Your task to perform on an android device: turn off location Image 0: 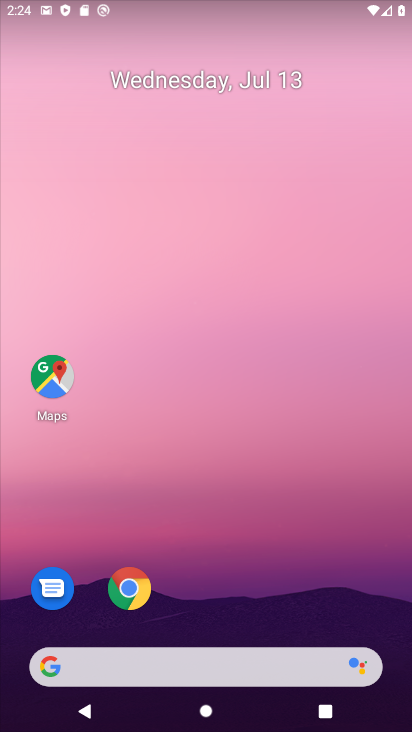
Step 0: drag from (279, 573) to (332, 71)
Your task to perform on an android device: turn off location Image 1: 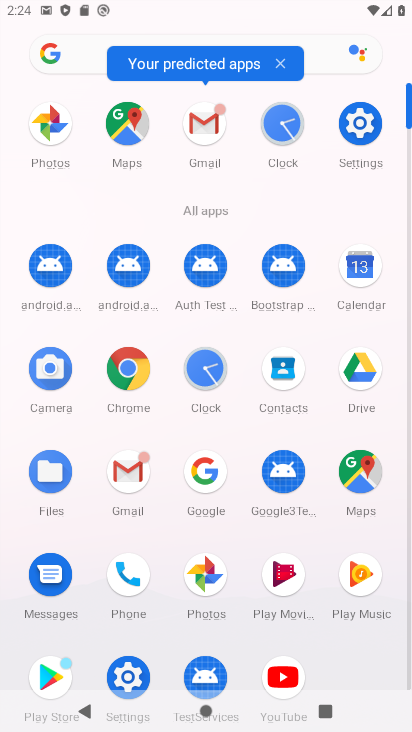
Step 1: click (357, 107)
Your task to perform on an android device: turn off location Image 2: 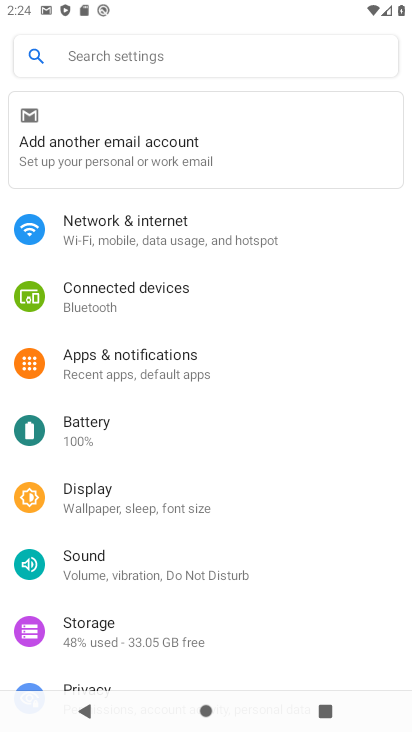
Step 2: drag from (188, 315) to (193, 276)
Your task to perform on an android device: turn off location Image 3: 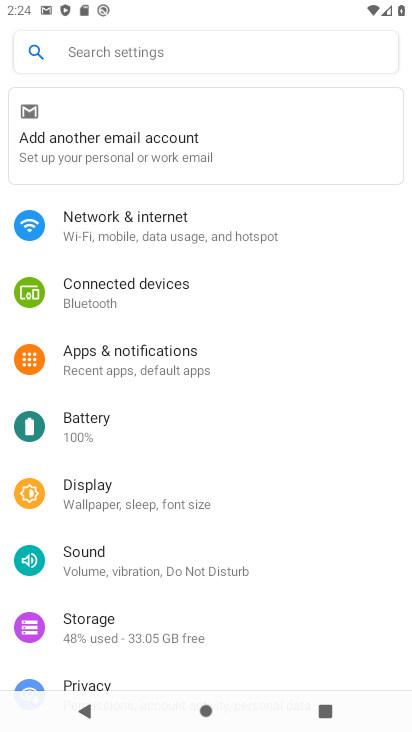
Step 3: drag from (141, 658) to (107, 287)
Your task to perform on an android device: turn off location Image 4: 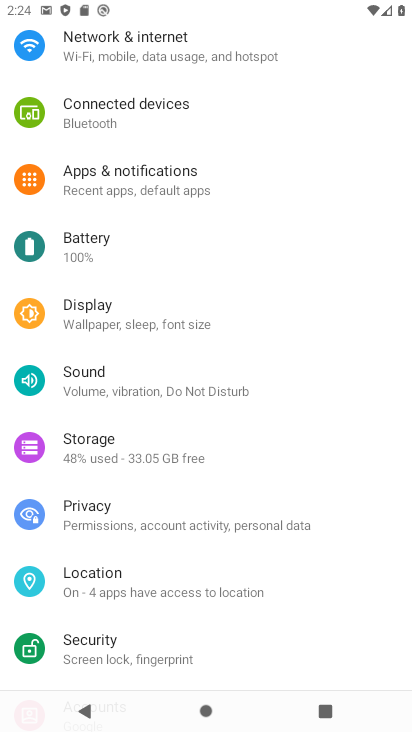
Step 4: click (106, 580)
Your task to perform on an android device: turn off location Image 5: 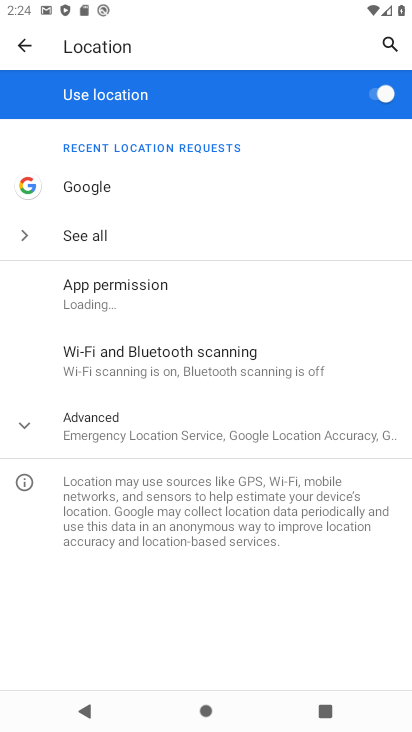
Step 5: click (377, 105)
Your task to perform on an android device: turn off location Image 6: 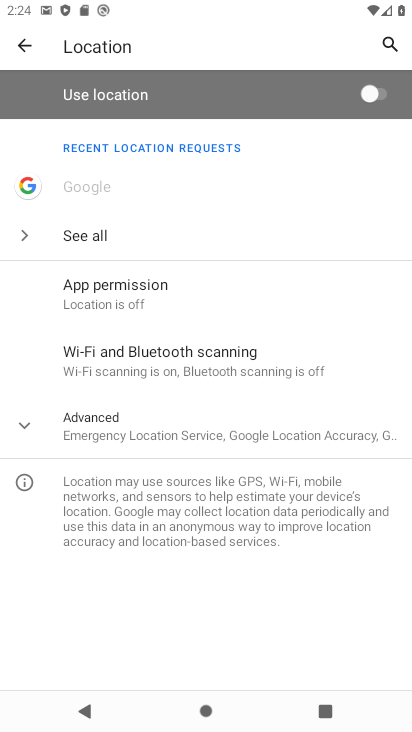
Step 6: task complete